Your task to perform on an android device: read, delete, or share a saved page in the chrome app Image 0: 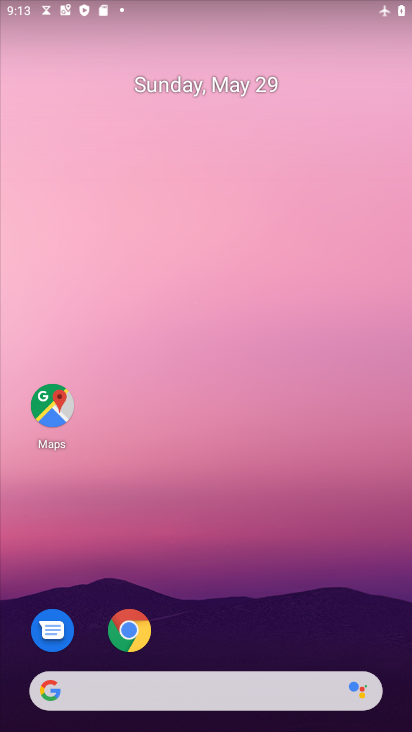
Step 0: click (131, 636)
Your task to perform on an android device: read, delete, or share a saved page in the chrome app Image 1: 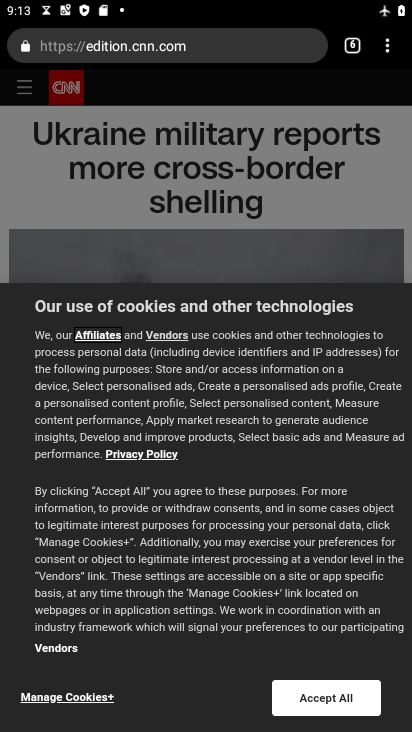
Step 1: click (389, 40)
Your task to perform on an android device: read, delete, or share a saved page in the chrome app Image 2: 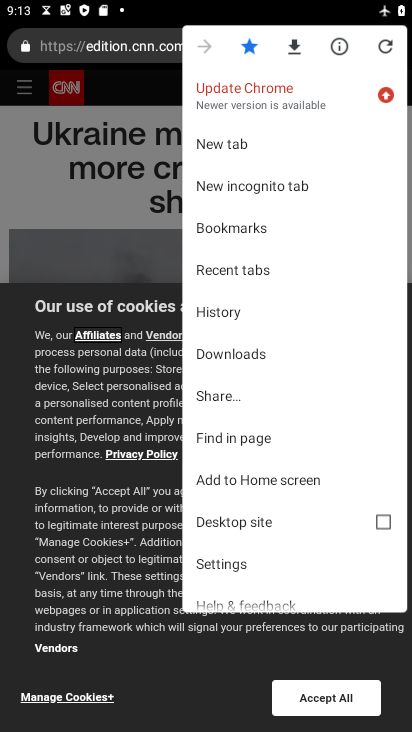
Step 2: click (236, 358)
Your task to perform on an android device: read, delete, or share a saved page in the chrome app Image 3: 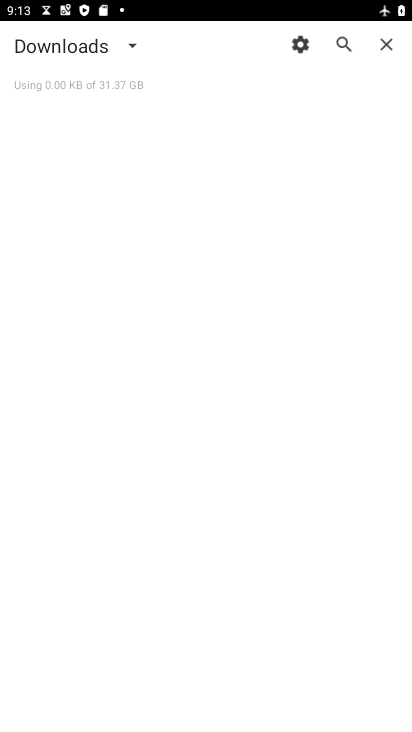
Step 3: click (129, 47)
Your task to perform on an android device: read, delete, or share a saved page in the chrome app Image 4: 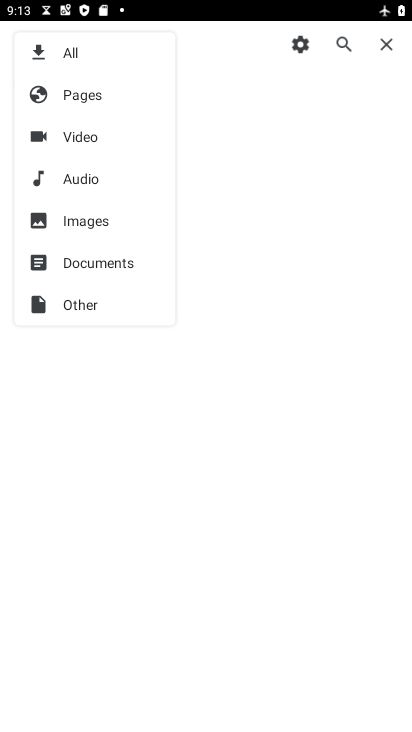
Step 4: click (87, 100)
Your task to perform on an android device: read, delete, or share a saved page in the chrome app Image 5: 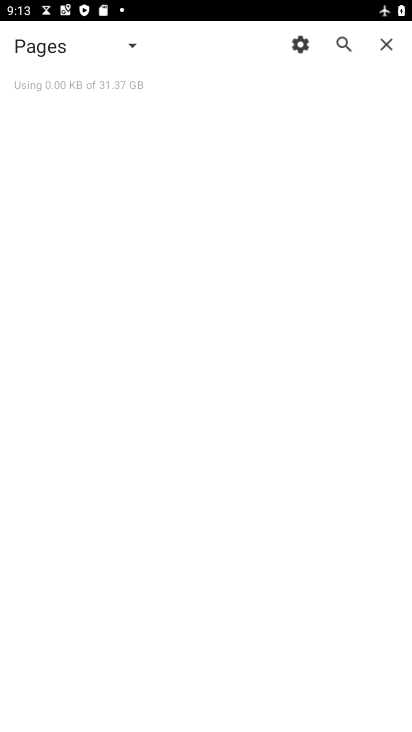
Step 5: task complete